Your task to perform on an android device: move a message to another label in the gmail app Image 0: 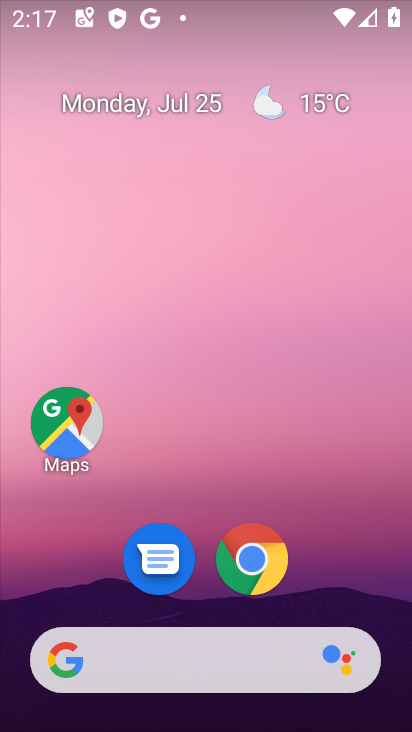
Step 0: drag from (56, 554) to (227, 47)
Your task to perform on an android device: move a message to another label in the gmail app Image 1: 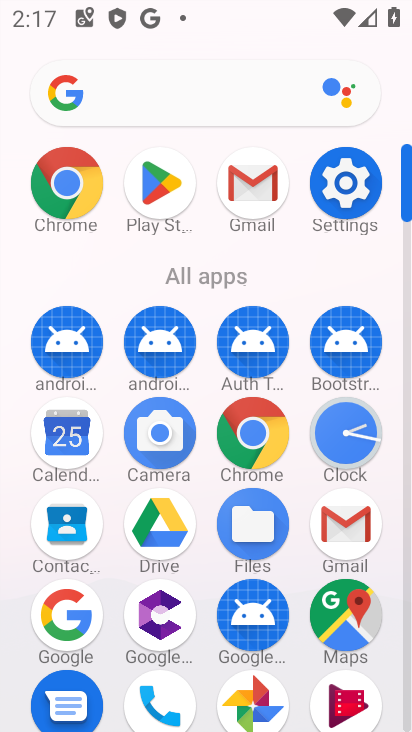
Step 1: click (252, 196)
Your task to perform on an android device: move a message to another label in the gmail app Image 2: 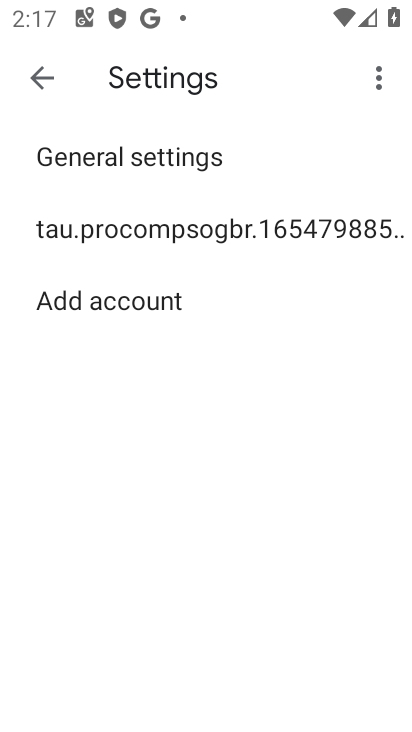
Step 2: click (29, 64)
Your task to perform on an android device: move a message to another label in the gmail app Image 3: 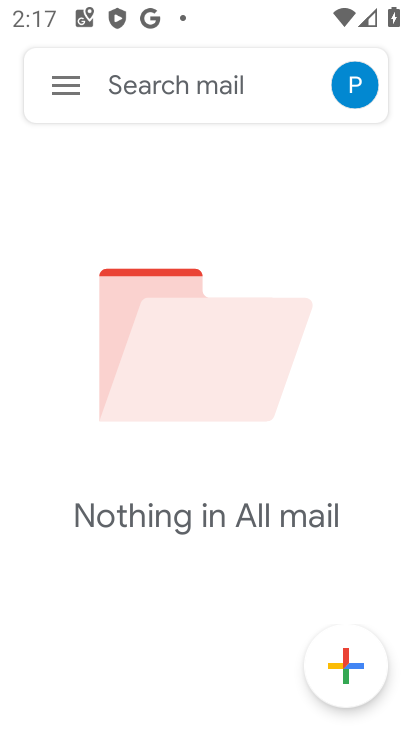
Step 3: task complete